Your task to perform on an android device: open app "TextNow: Call + Text Unlimited" Image 0: 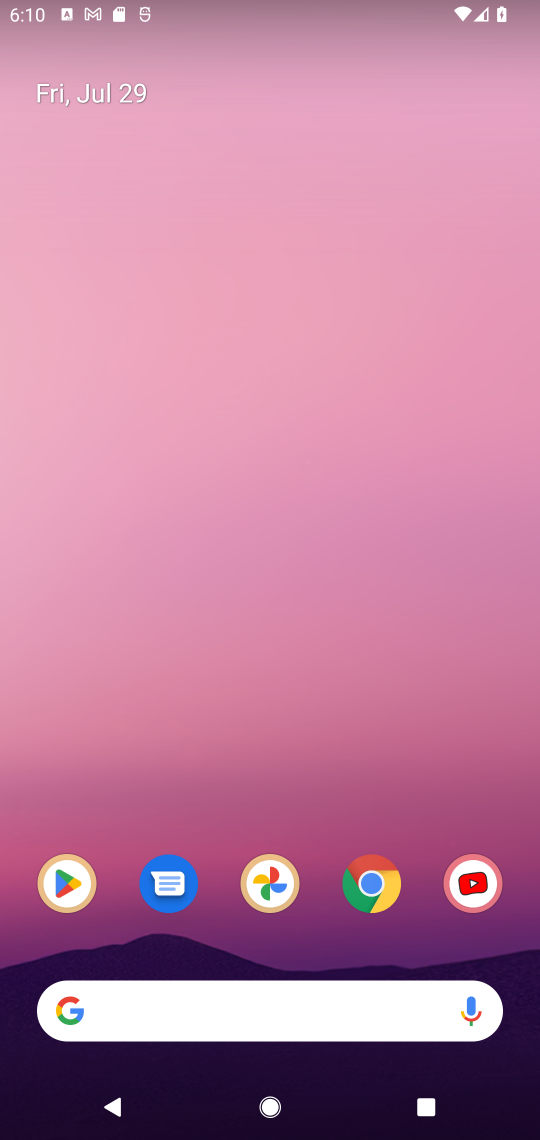
Step 0: click (80, 886)
Your task to perform on an android device: open app "TextNow: Call + Text Unlimited" Image 1: 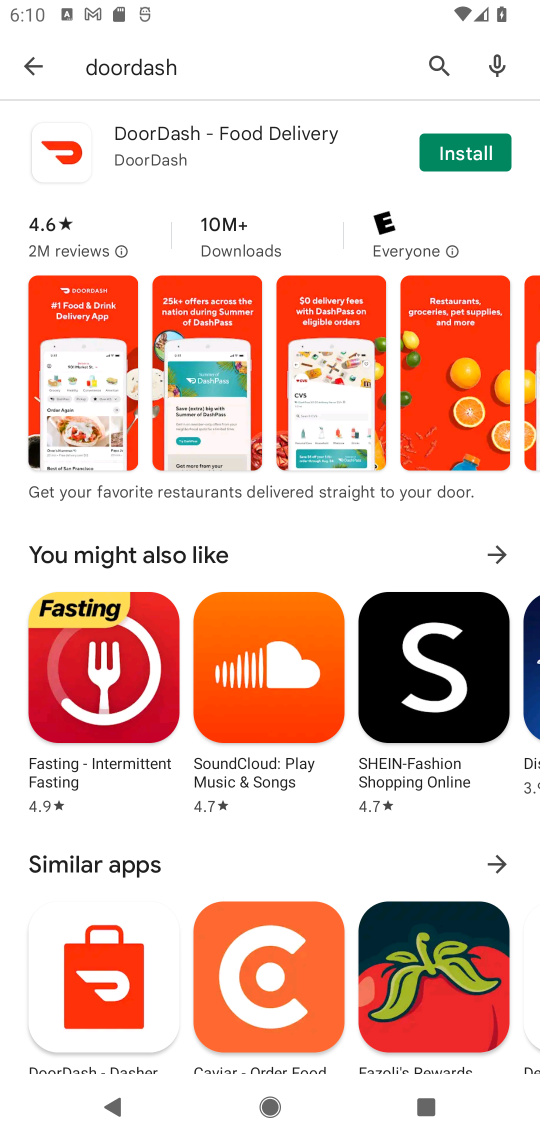
Step 1: click (433, 59)
Your task to perform on an android device: open app "TextNow: Call + Text Unlimited" Image 2: 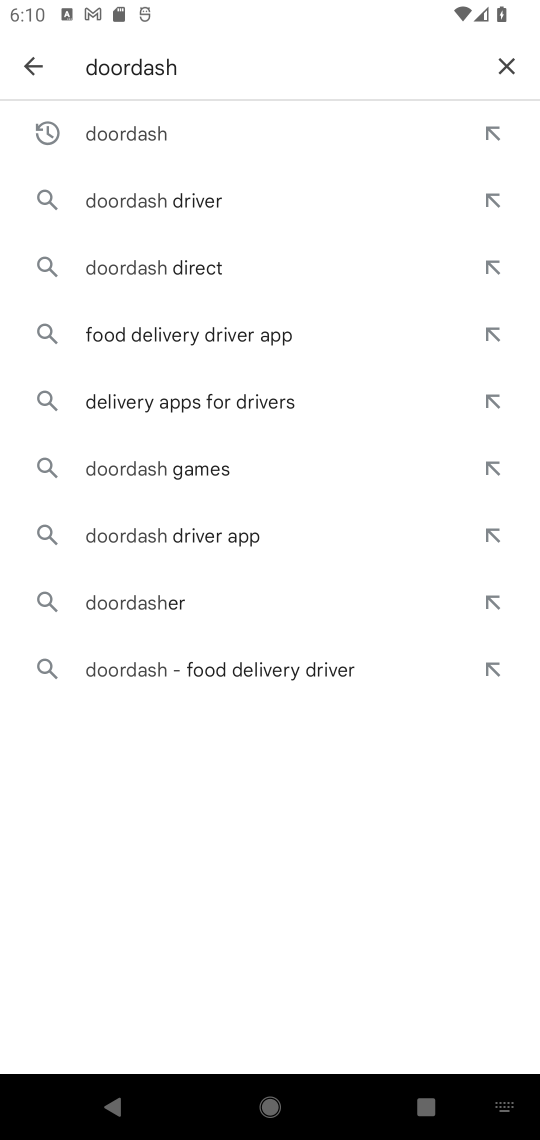
Step 2: click (516, 62)
Your task to perform on an android device: open app "TextNow: Call + Text Unlimited" Image 3: 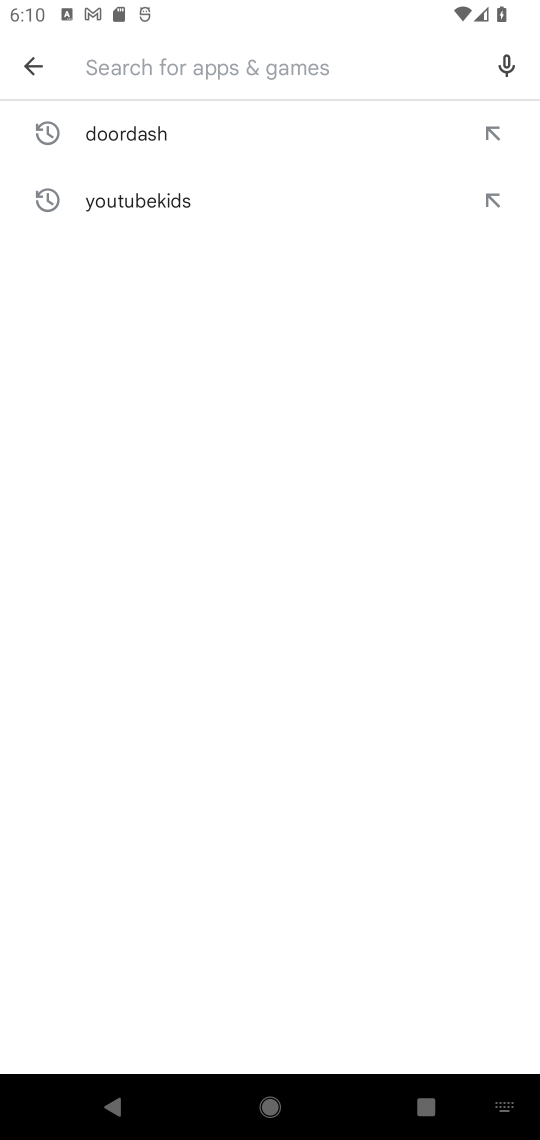
Step 3: click (189, 58)
Your task to perform on an android device: open app "TextNow: Call + Text Unlimited" Image 4: 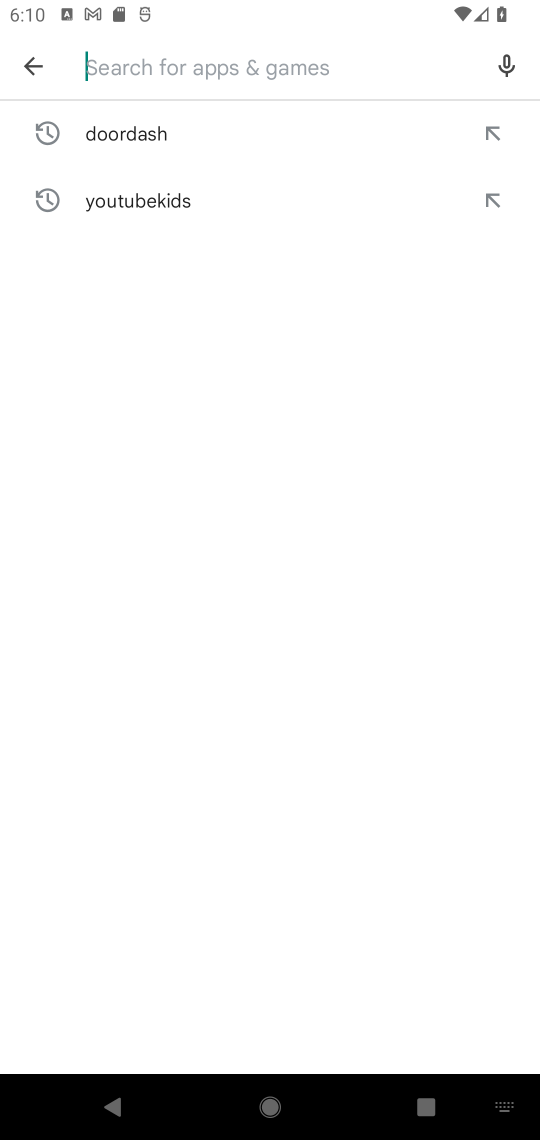
Step 4: type "textnow call"
Your task to perform on an android device: open app "TextNow: Call + Text Unlimited" Image 5: 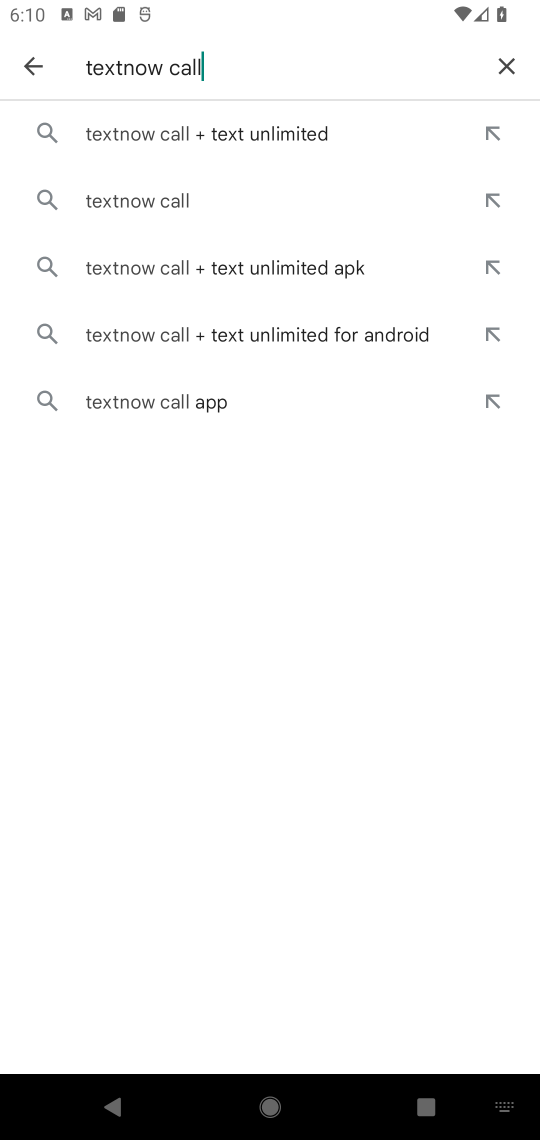
Step 5: click (208, 137)
Your task to perform on an android device: open app "TextNow: Call + Text Unlimited" Image 6: 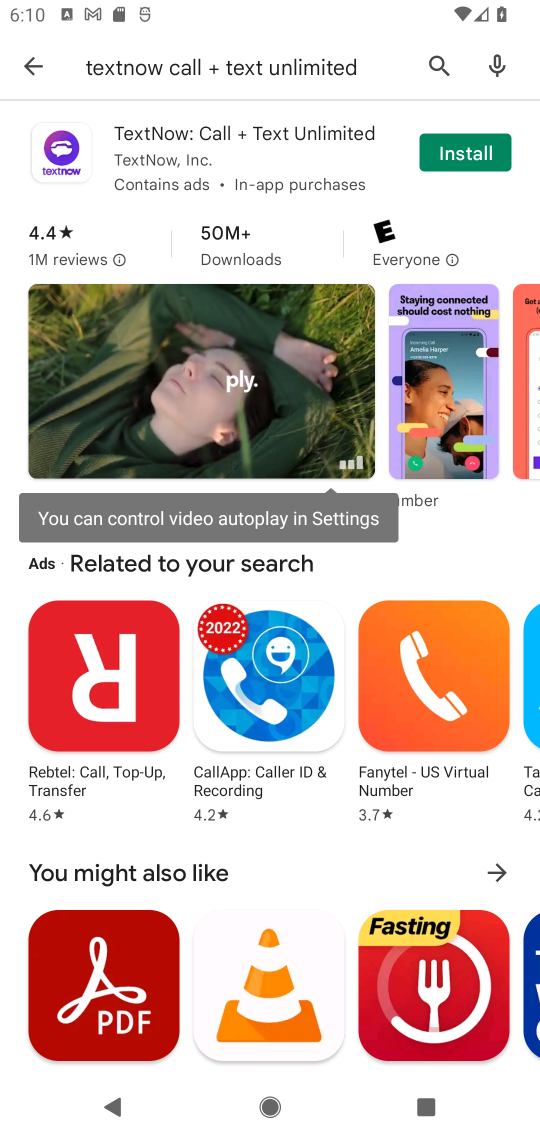
Step 6: task complete